Your task to perform on an android device: set an alarm Image 0: 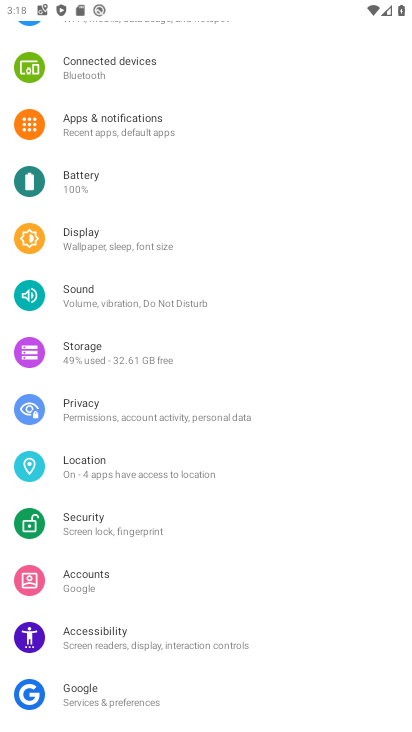
Step 0: press home button
Your task to perform on an android device: set an alarm Image 1: 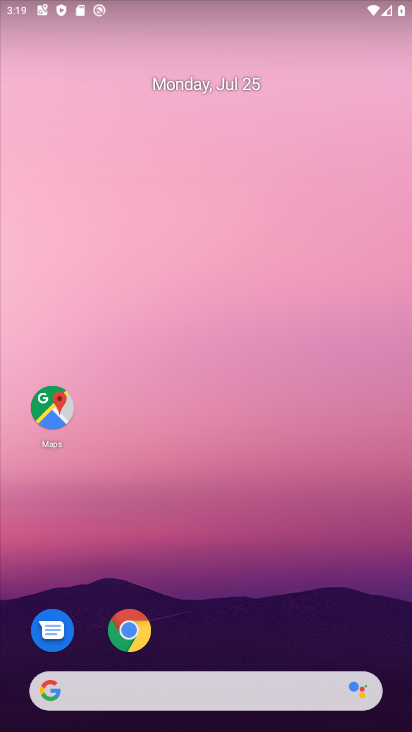
Step 1: drag from (214, 681) to (235, 152)
Your task to perform on an android device: set an alarm Image 2: 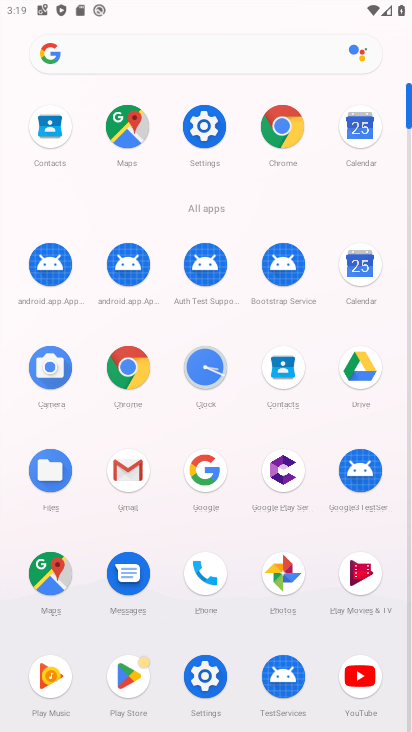
Step 2: click (211, 384)
Your task to perform on an android device: set an alarm Image 3: 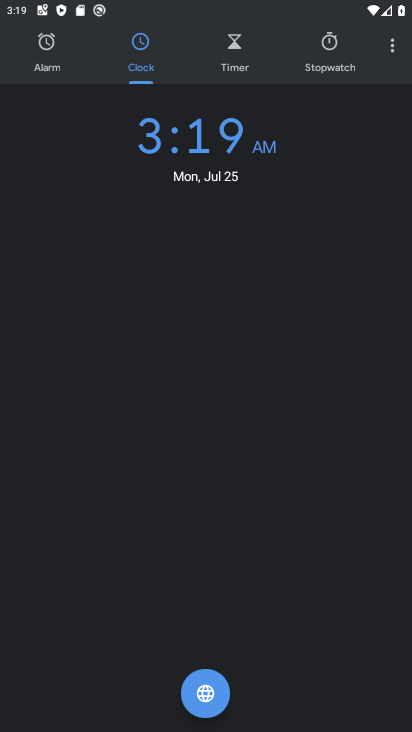
Step 3: click (56, 50)
Your task to perform on an android device: set an alarm Image 4: 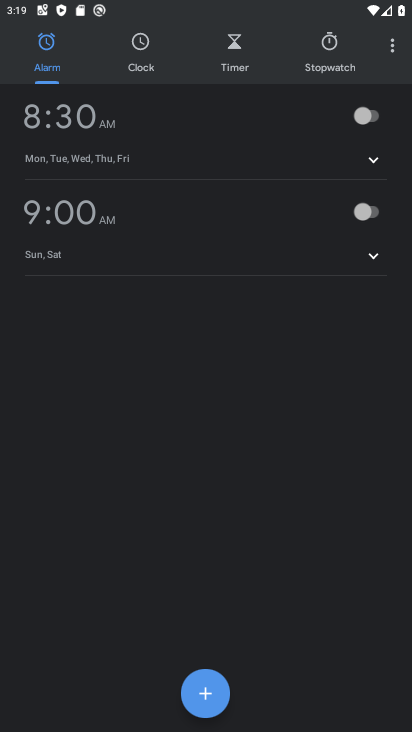
Step 4: click (220, 669)
Your task to perform on an android device: set an alarm Image 5: 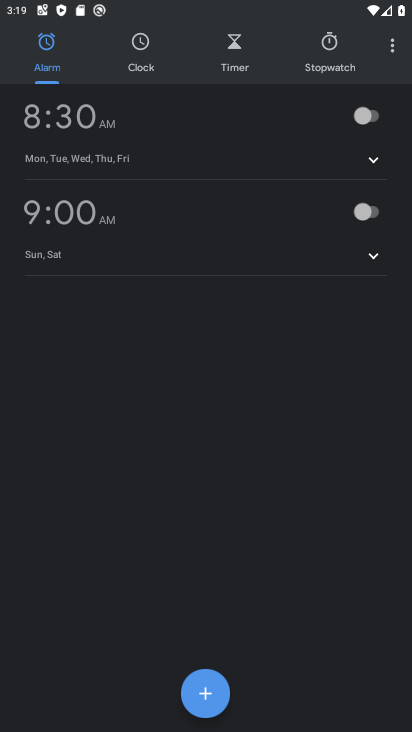
Step 5: click (205, 690)
Your task to perform on an android device: set an alarm Image 6: 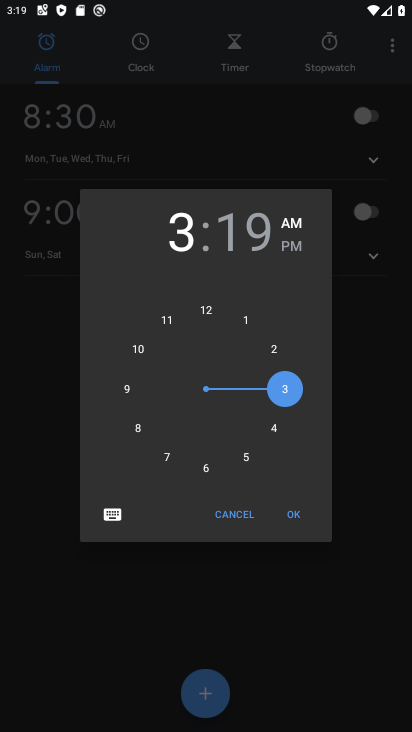
Step 6: click (195, 470)
Your task to perform on an android device: set an alarm Image 7: 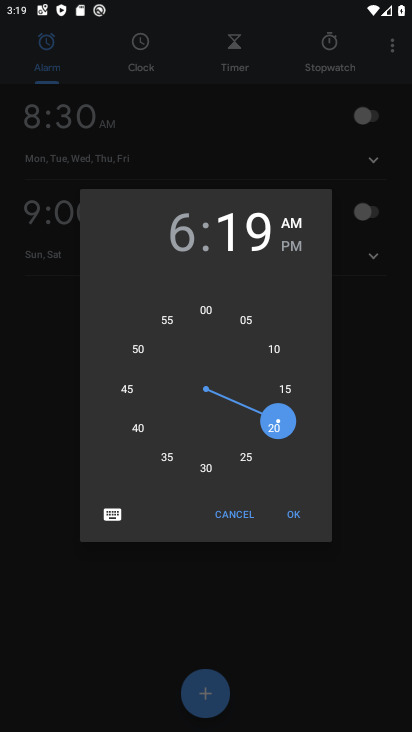
Step 7: click (281, 498)
Your task to perform on an android device: set an alarm Image 8: 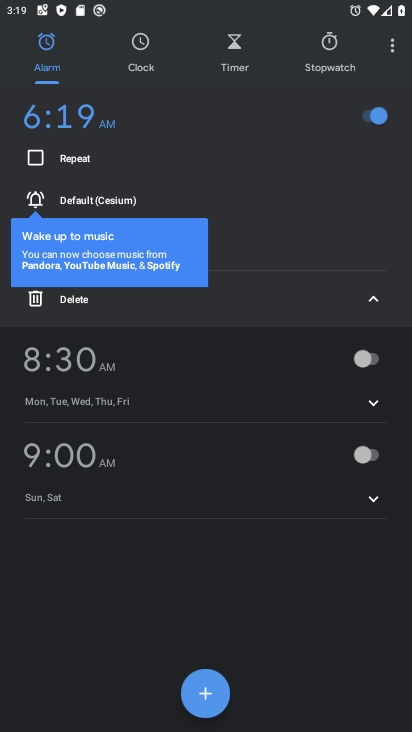
Step 8: task complete